Your task to perform on an android device: Clear the cart on bestbuy. Add macbook pro 13 inch to the cart on bestbuy, then select checkout. Image 0: 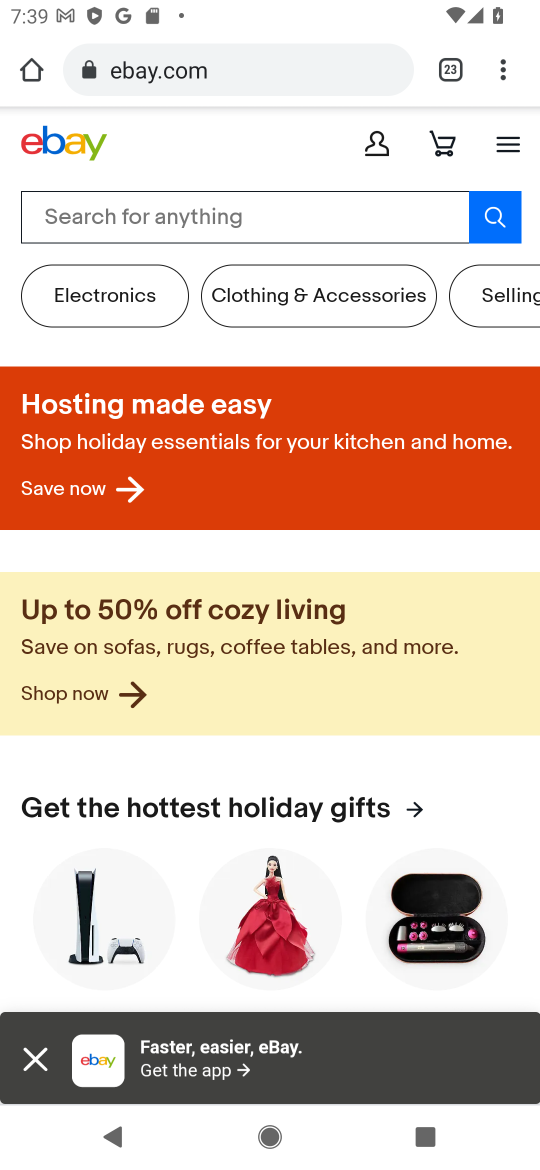
Step 0: task complete